Your task to perform on an android device: Add "energizer triple a" to the cart on newegg.com, then select checkout. Image 0: 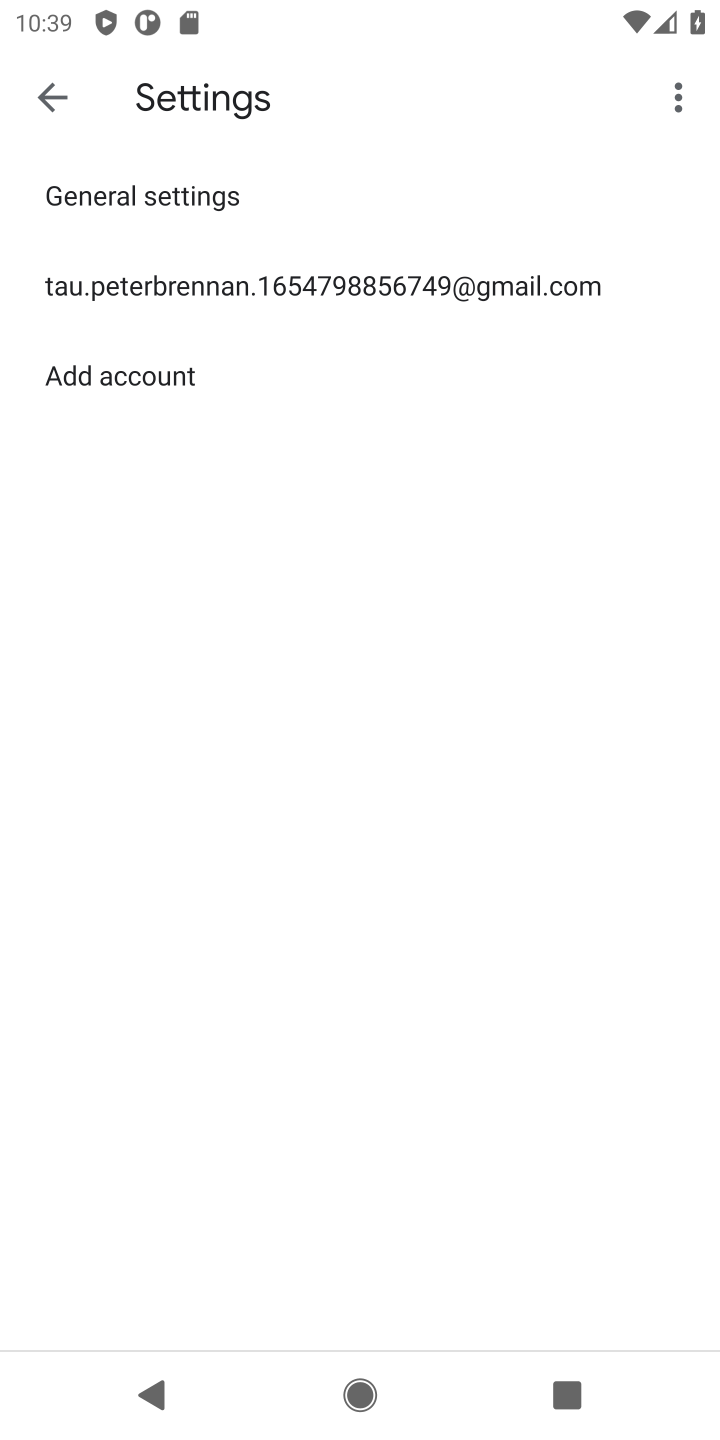
Step 0: press home button
Your task to perform on an android device: Add "energizer triple a" to the cart on newegg.com, then select checkout. Image 1: 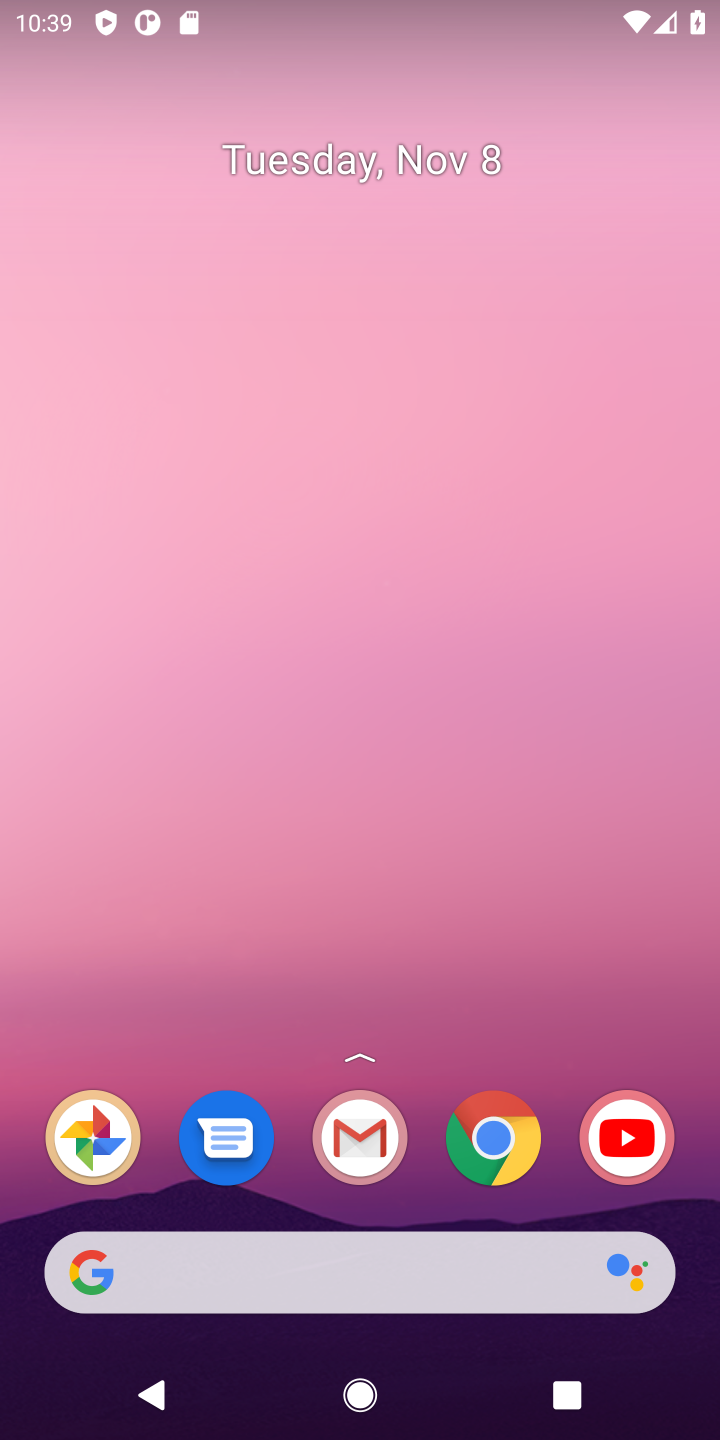
Step 1: click (485, 1126)
Your task to perform on an android device: Add "energizer triple a" to the cart on newegg.com, then select checkout. Image 2: 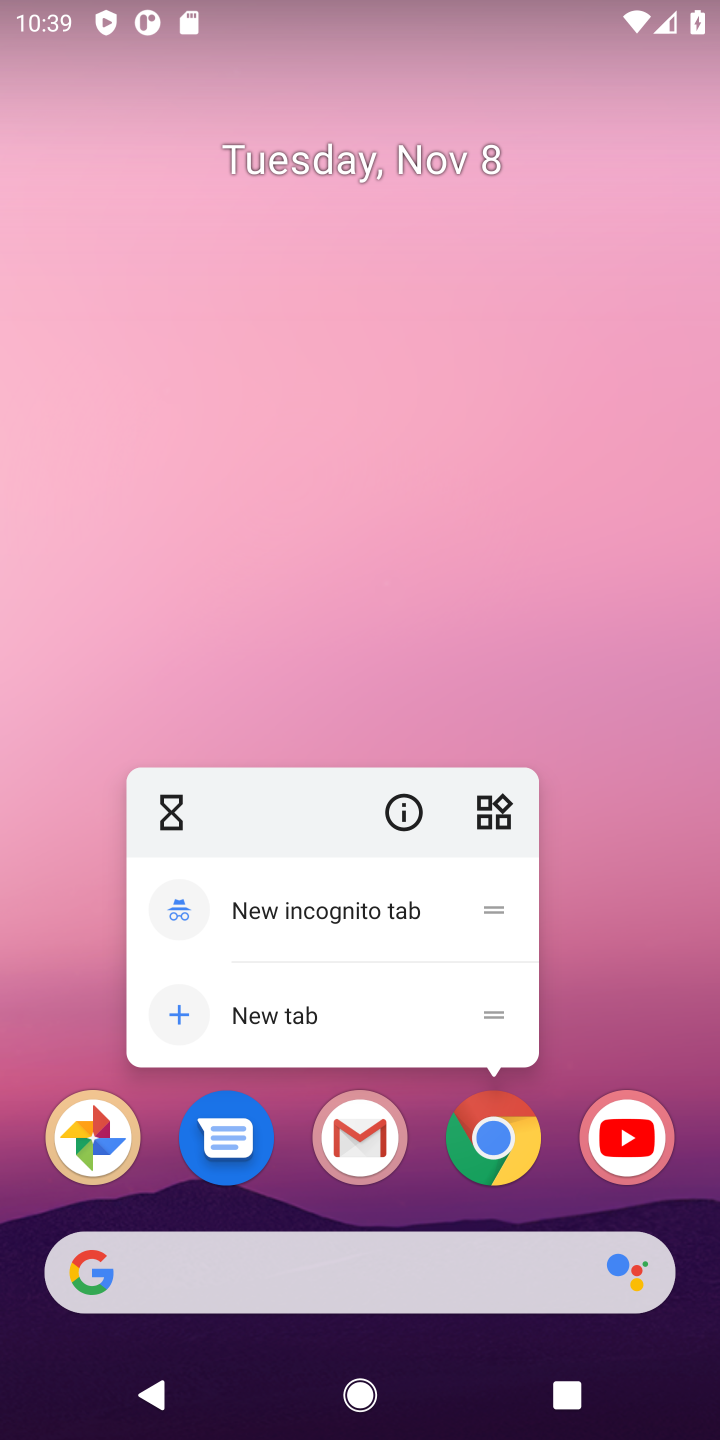
Step 2: click (504, 1149)
Your task to perform on an android device: Add "energizer triple a" to the cart on newegg.com, then select checkout. Image 3: 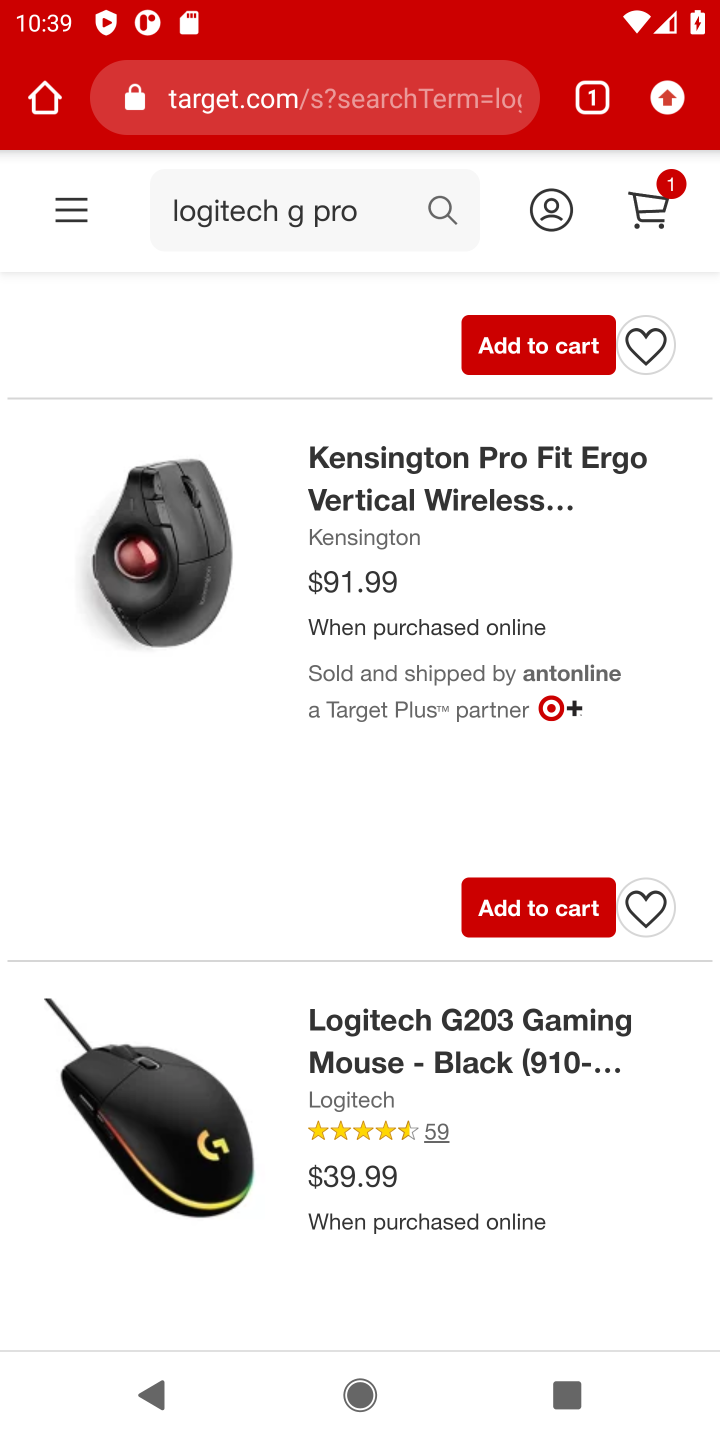
Step 3: click (444, 104)
Your task to perform on an android device: Add "energizer triple a" to the cart on newegg.com, then select checkout. Image 4: 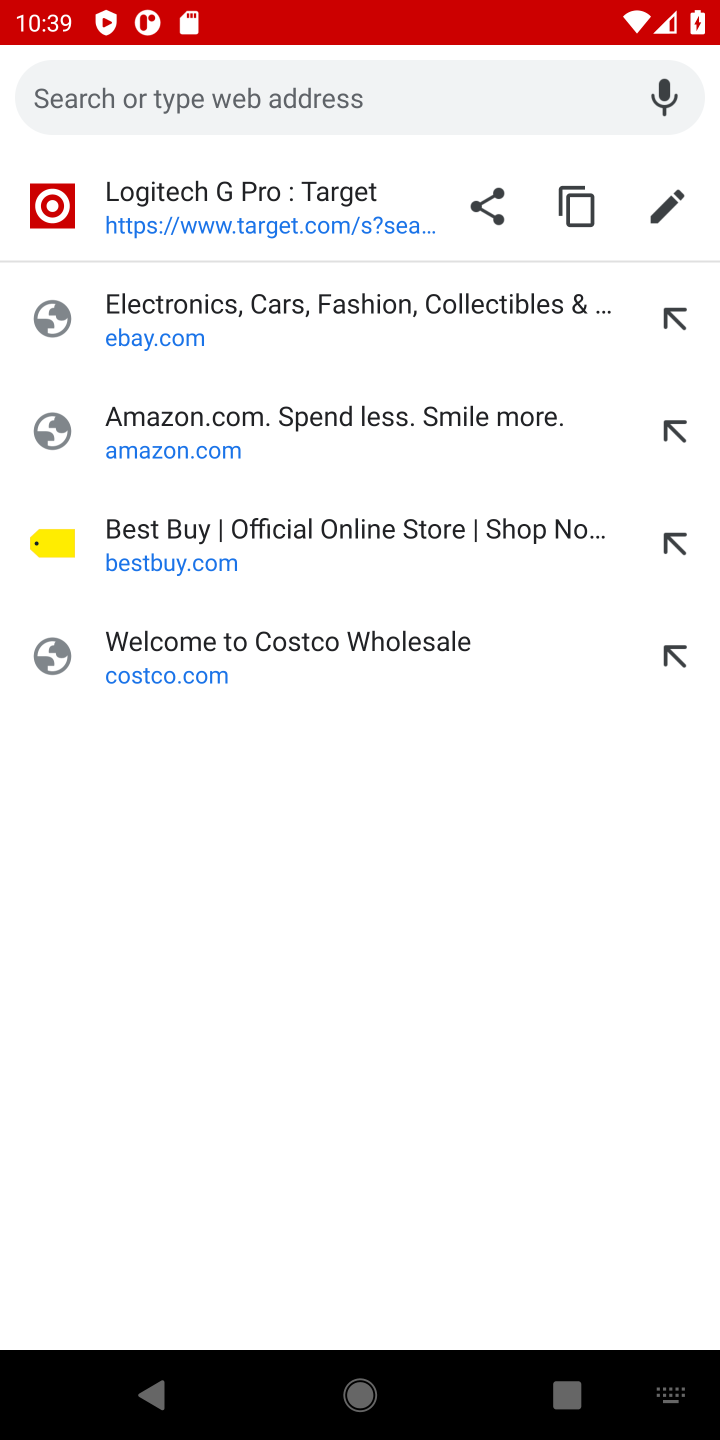
Step 4: press enter
Your task to perform on an android device: Add "energizer triple a" to the cart on newegg.com, then select checkout. Image 5: 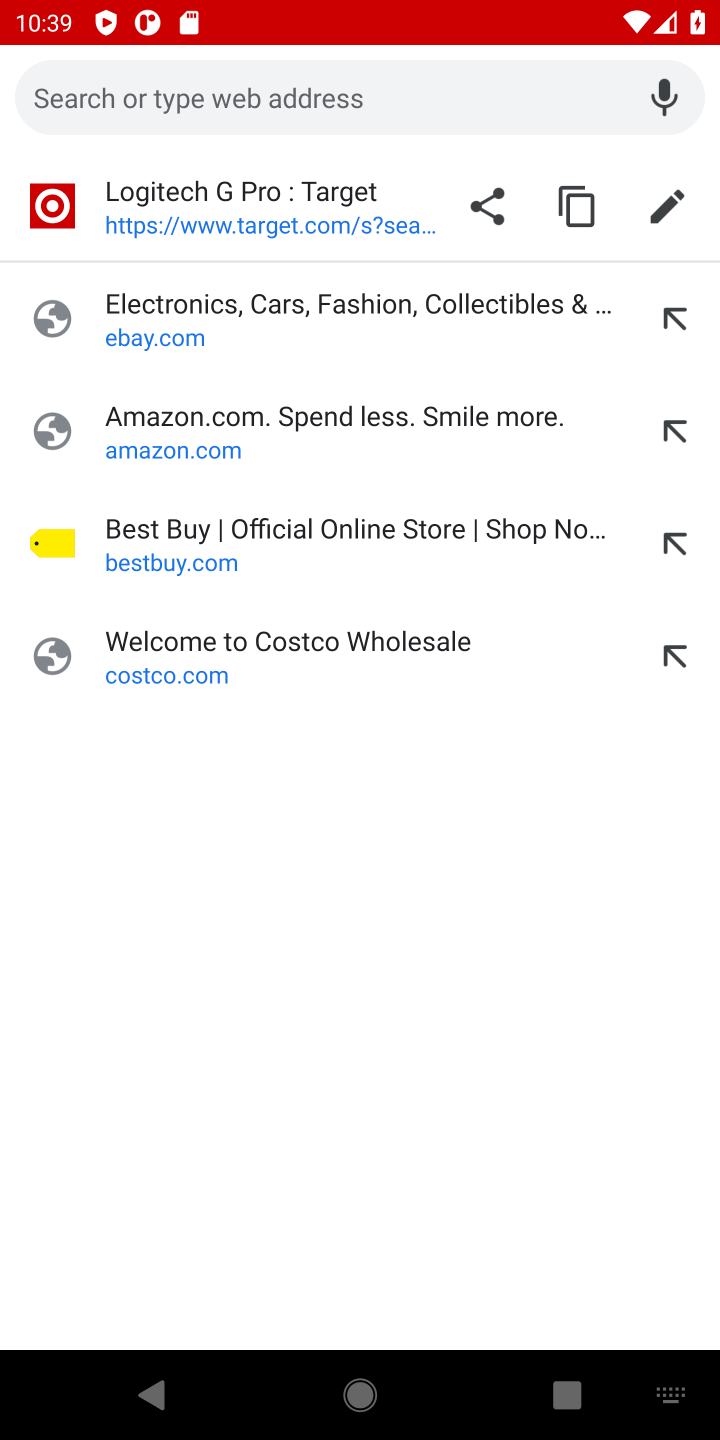
Step 5: type " newegg.com"
Your task to perform on an android device: Add "energizer triple a" to the cart on newegg.com, then select checkout. Image 6: 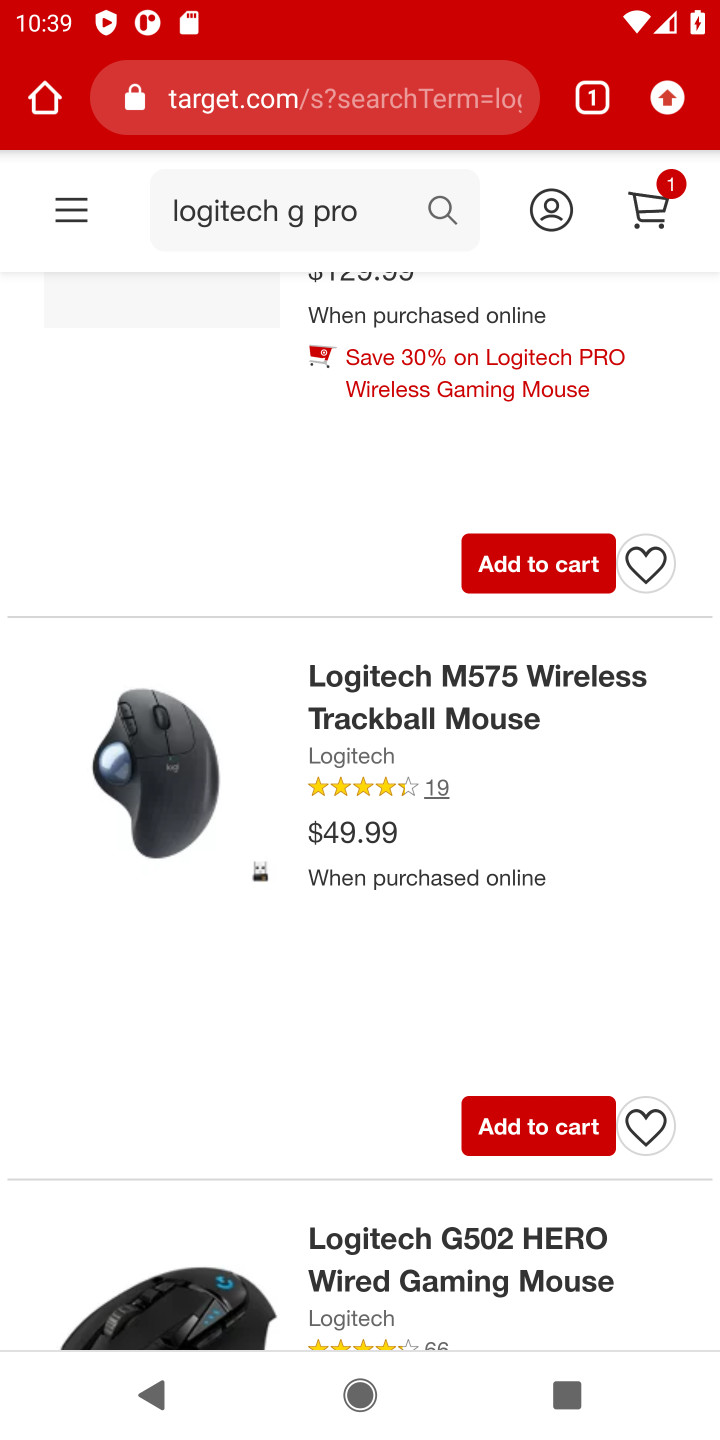
Step 6: click (389, 191)
Your task to perform on an android device: Add "energizer triple a" to the cart on newegg.com, then select checkout. Image 7: 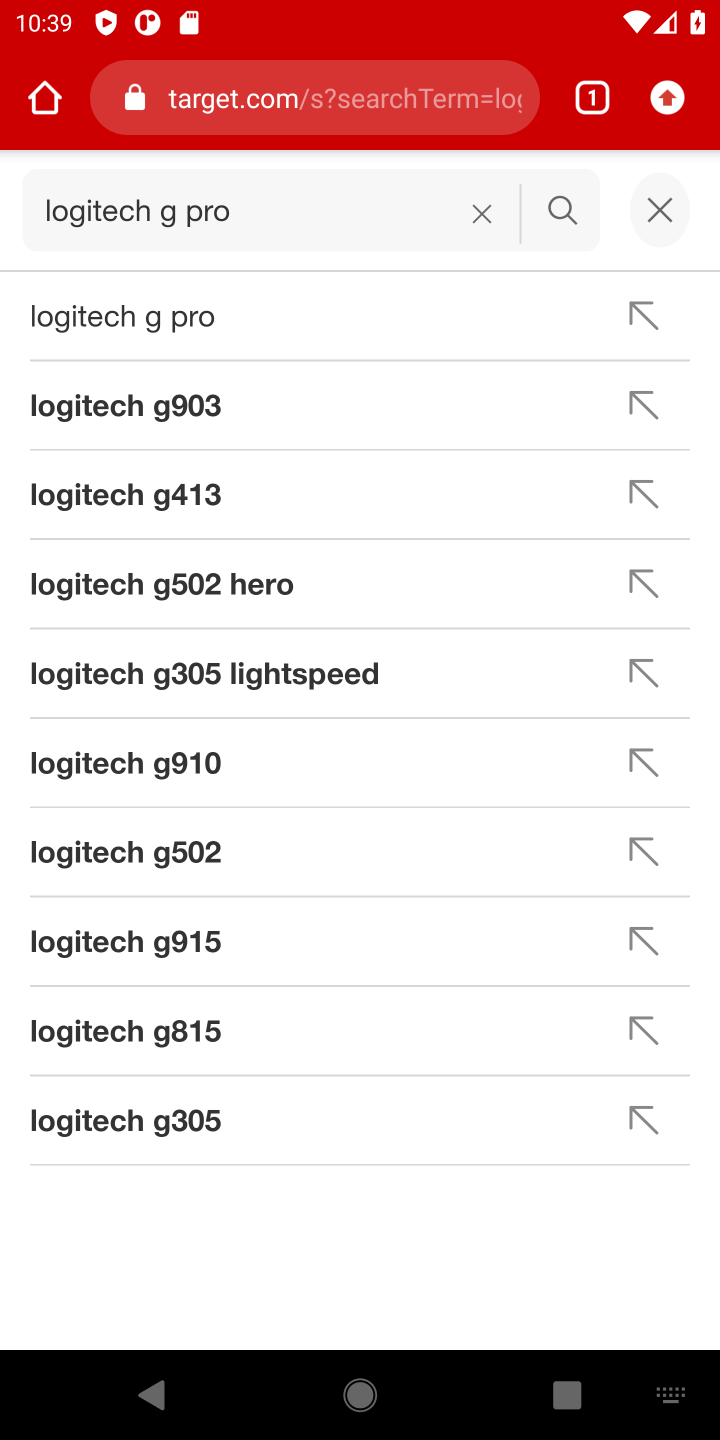
Step 7: click (394, 102)
Your task to perform on an android device: Add "energizer triple a" to the cart on newegg.com, then select checkout. Image 8: 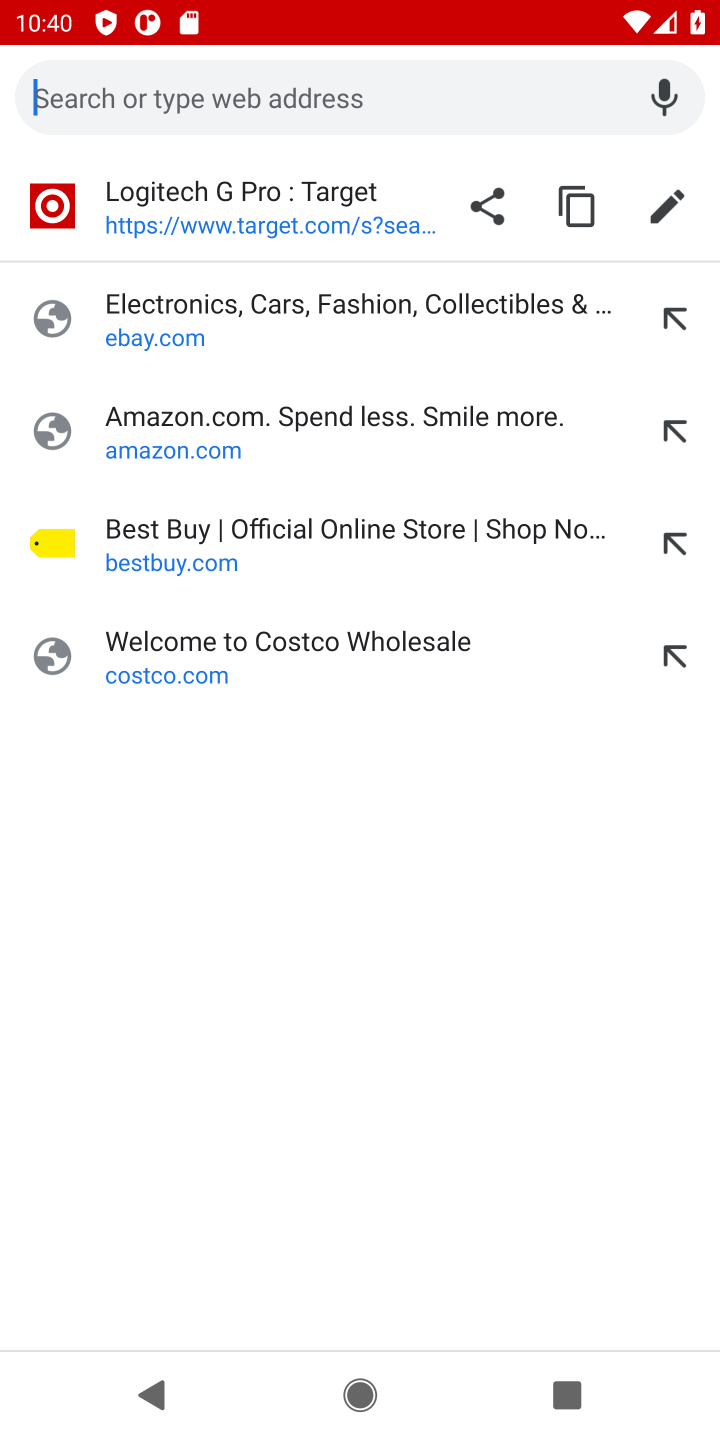
Step 8: type " newegg.com"
Your task to perform on an android device: Add "energizer triple a" to the cart on newegg.com, then select checkout. Image 9: 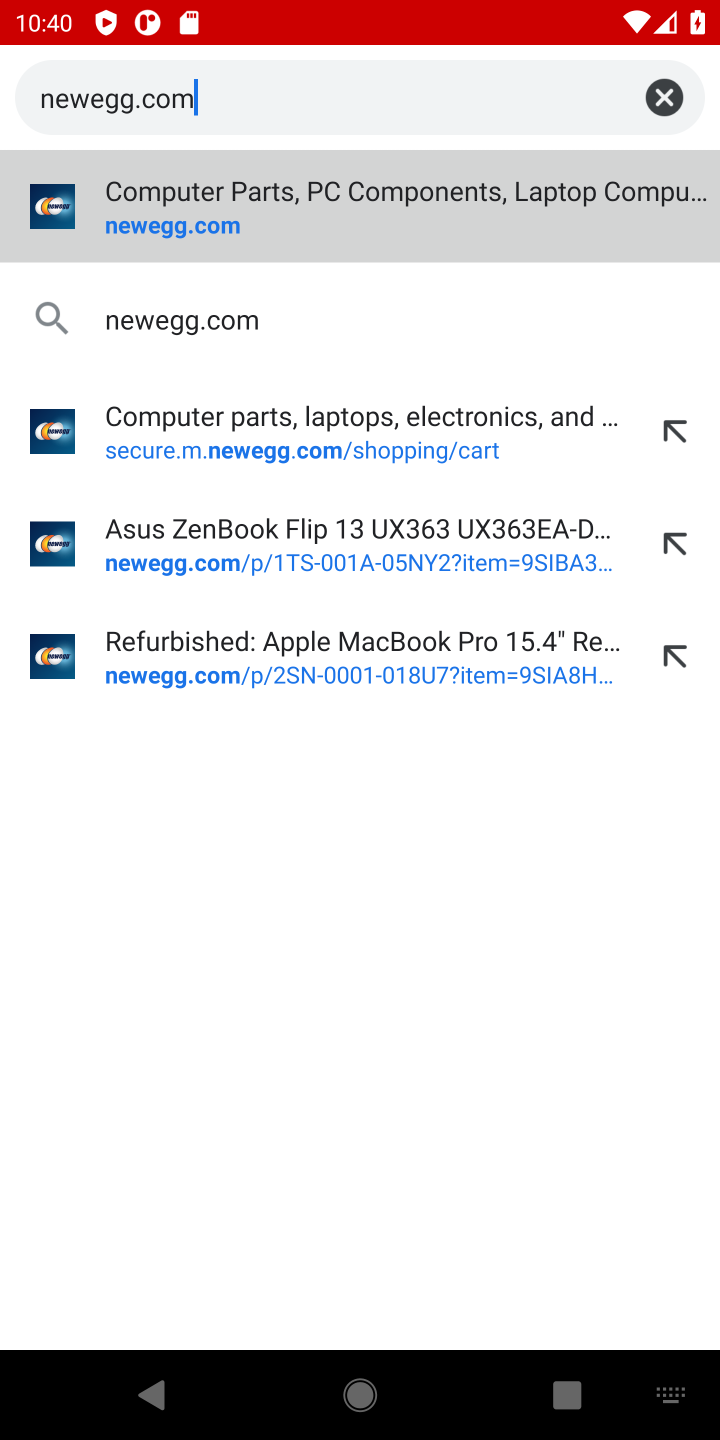
Step 9: press enter
Your task to perform on an android device: Add "energizer triple a" to the cart on newegg.com, then select checkout. Image 10: 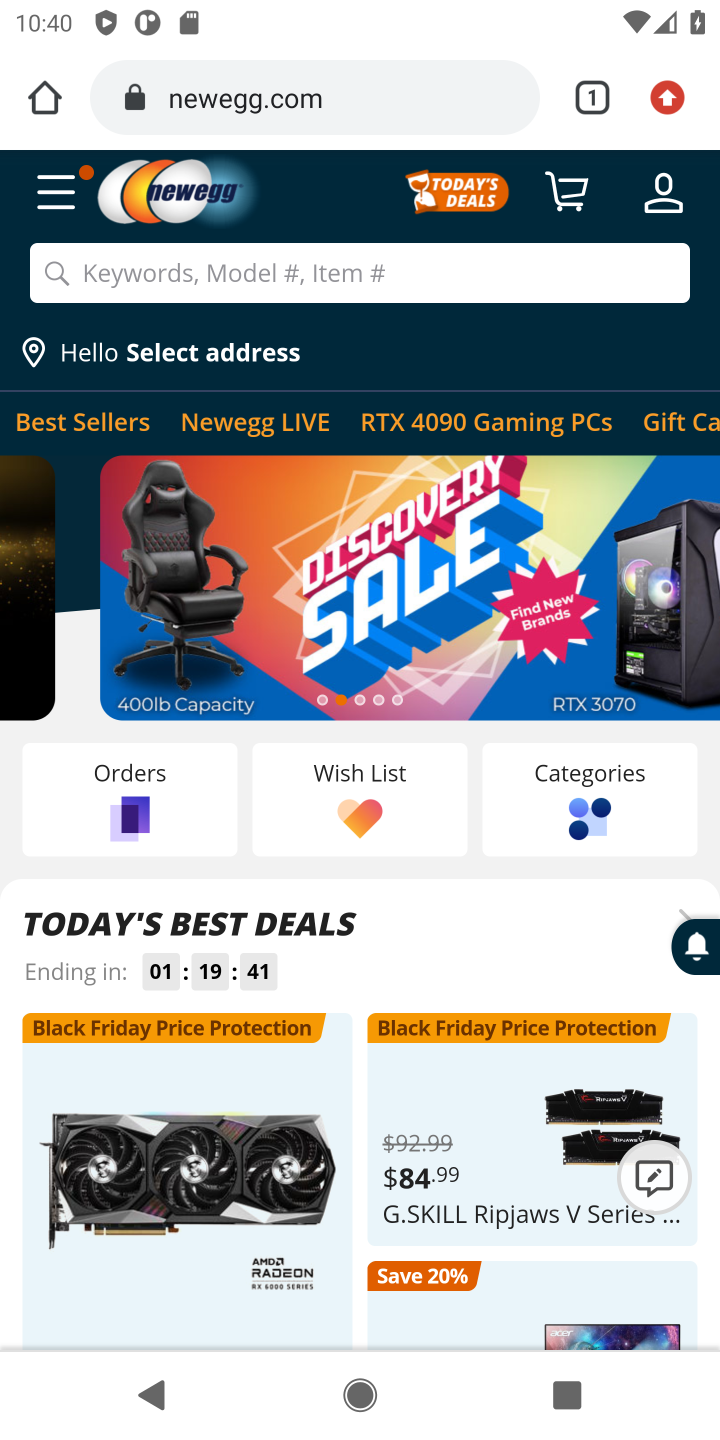
Step 10: click (210, 266)
Your task to perform on an android device: Add "energizer triple a" to the cart on newegg.com, then select checkout. Image 11: 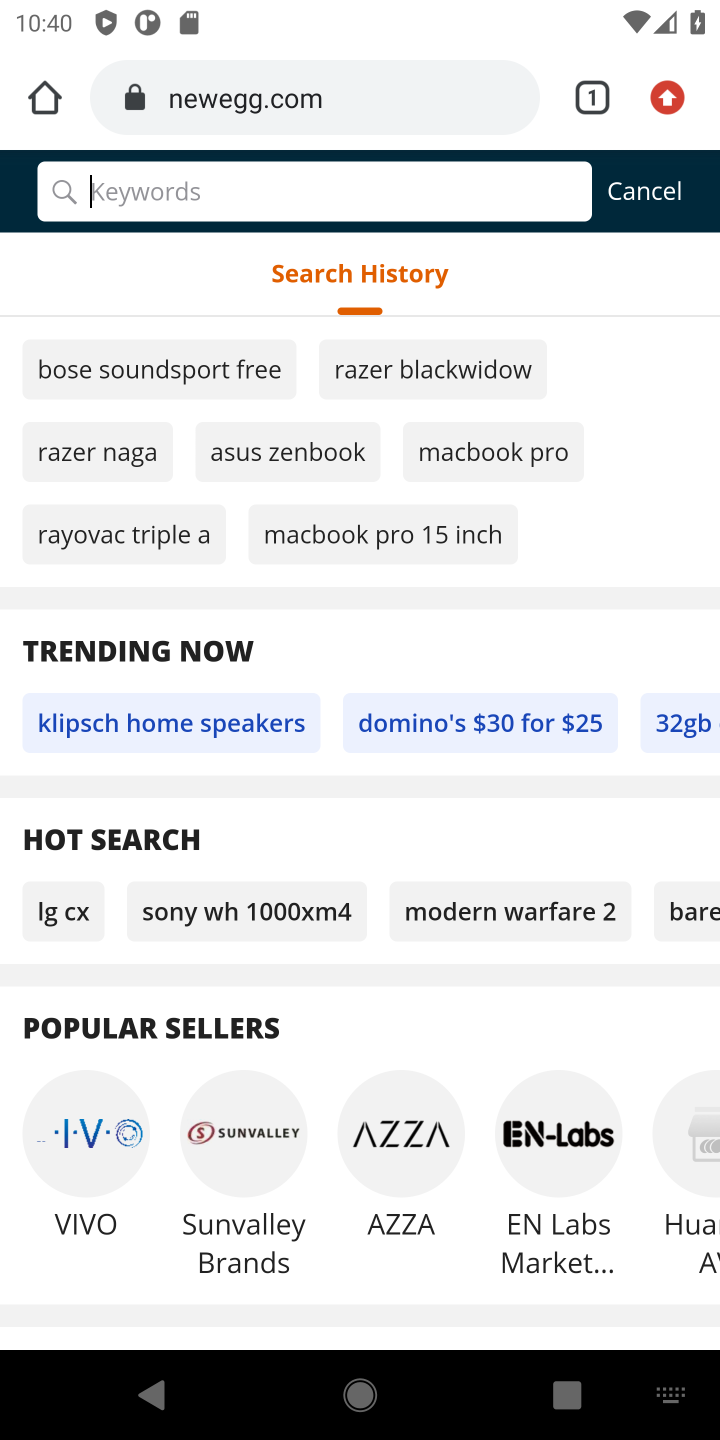
Step 11: click (210, 266)
Your task to perform on an android device: Add "energizer triple a" to the cart on newegg.com, then select checkout. Image 12: 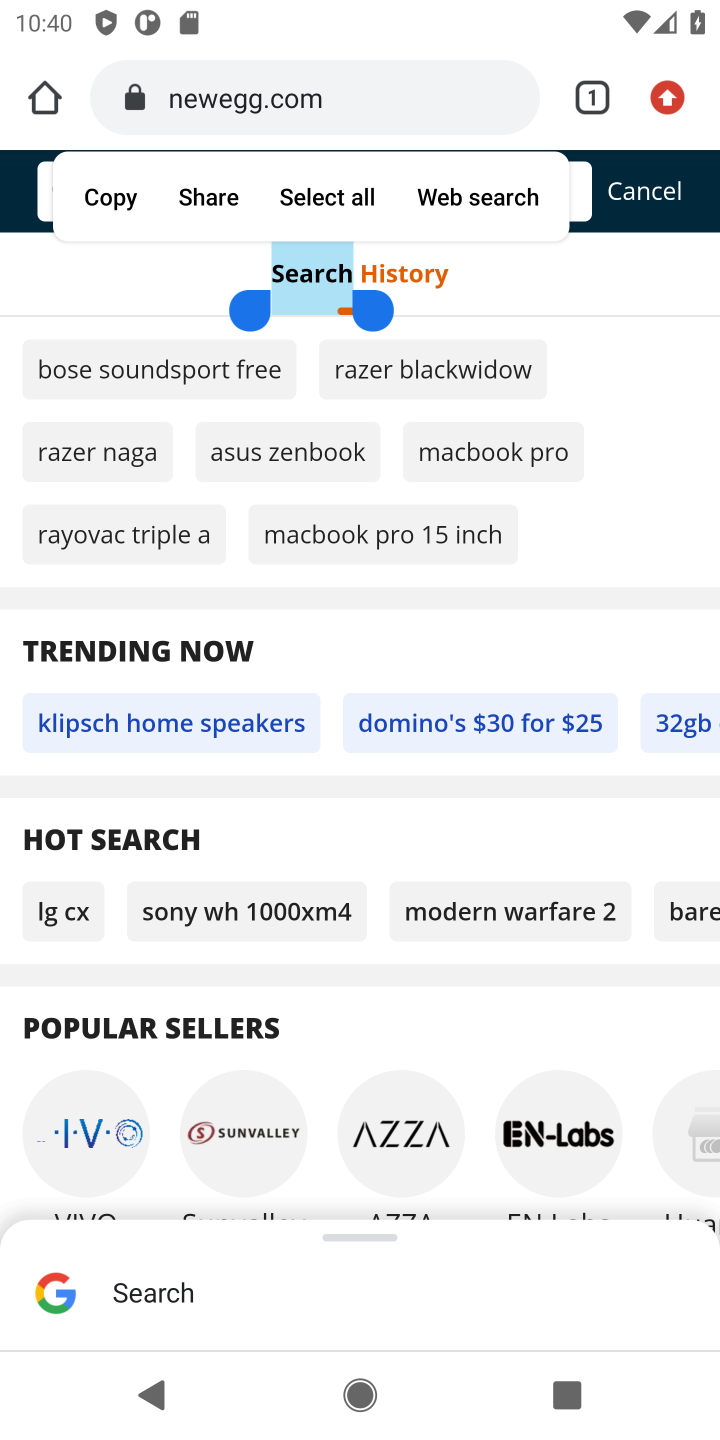
Step 12: click (669, 255)
Your task to perform on an android device: Add "energizer triple a" to the cart on newegg.com, then select checkout. Image 13: 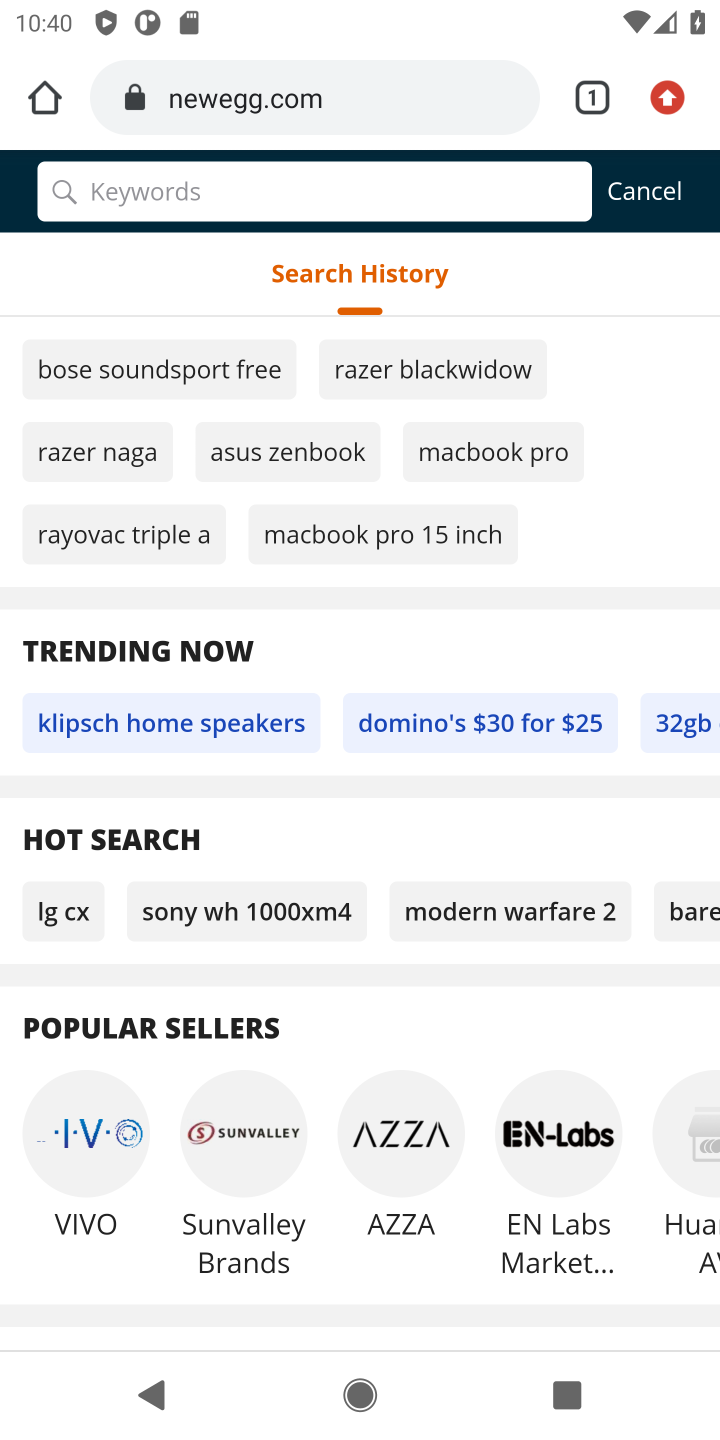
Step 13: click (110, 181)
Your task to perform on an android device: Add "energizer triple a" to the cart on newegg.com, then select checkout. Image 14: 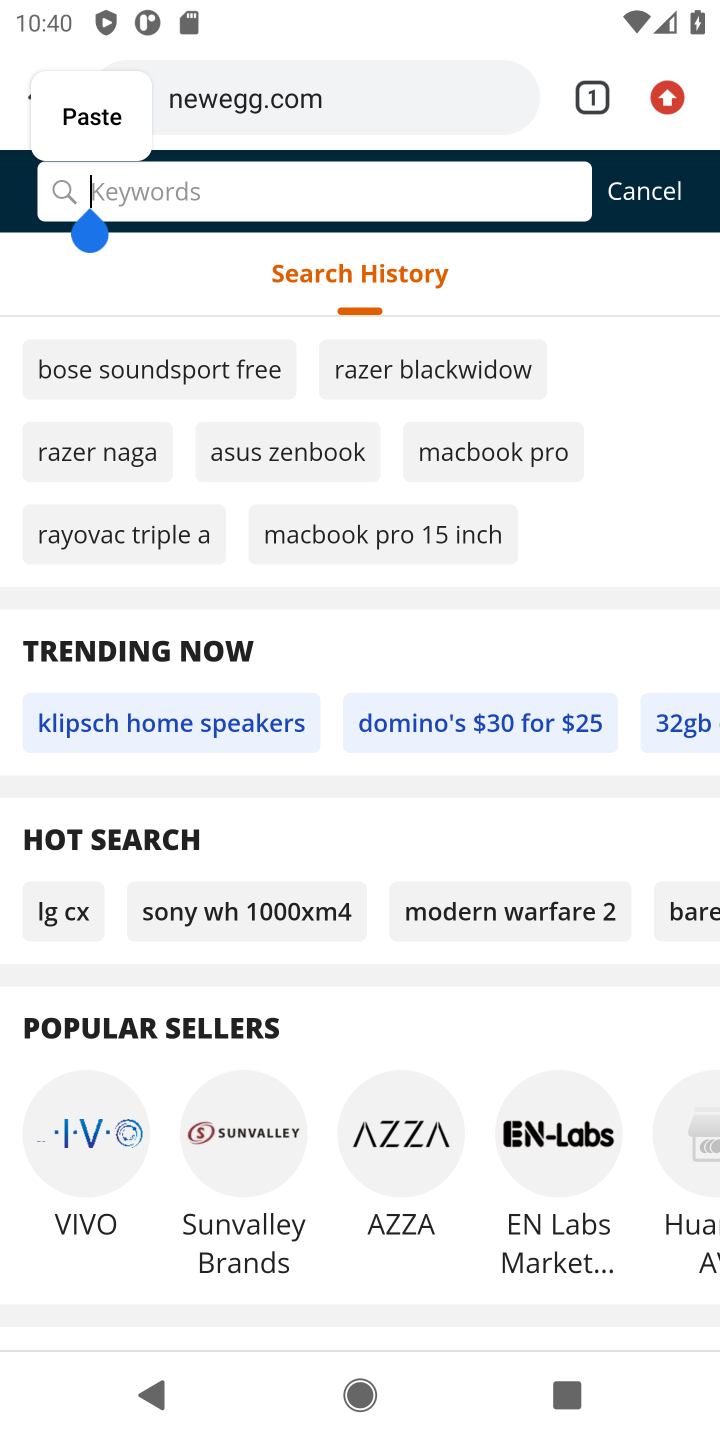
Step 14: type "energizer triple a"
Your task to perform on an android device: Add "energizer triple a" to the cart on newegg.com, then select checkout. Image 15: 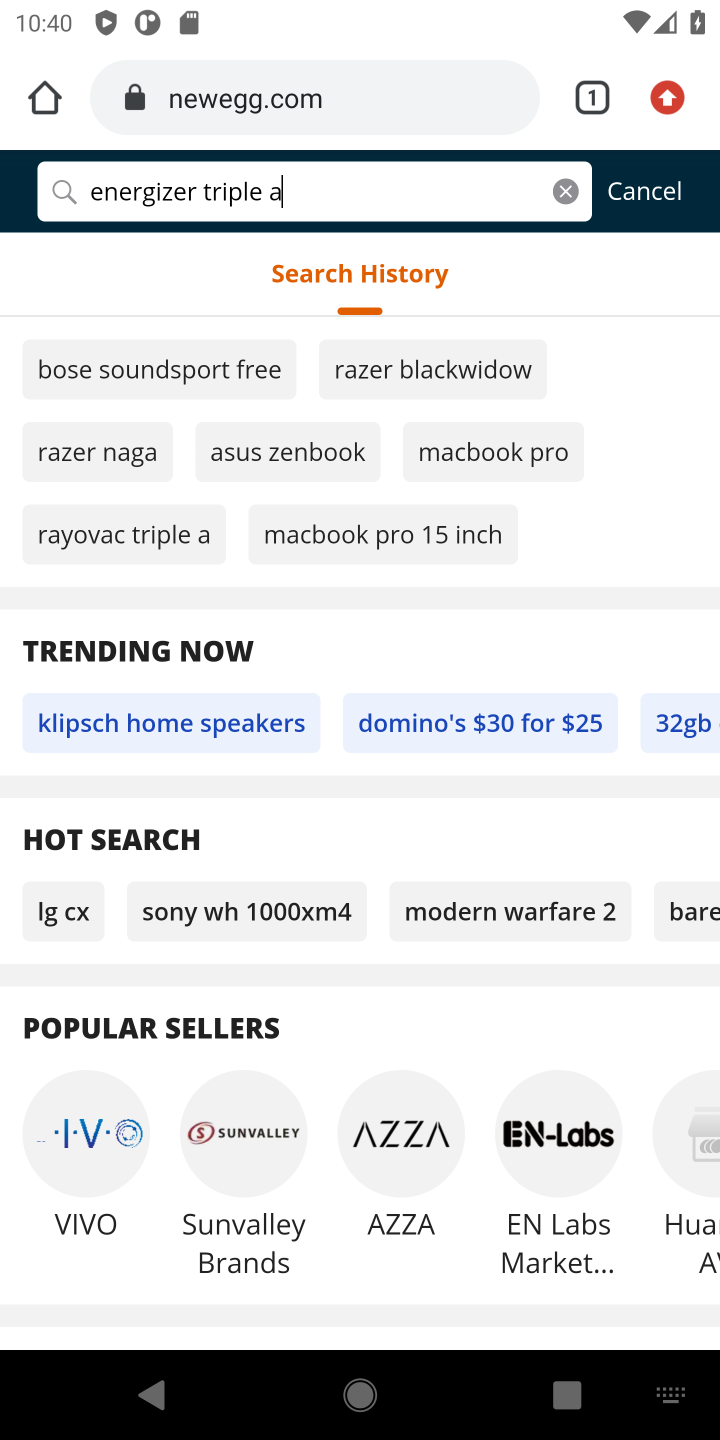
Step 15: press enter
Your task to perform on an android device: Add "energizer triple a" to the cart on newegg.com, then select checkout. Image 16: 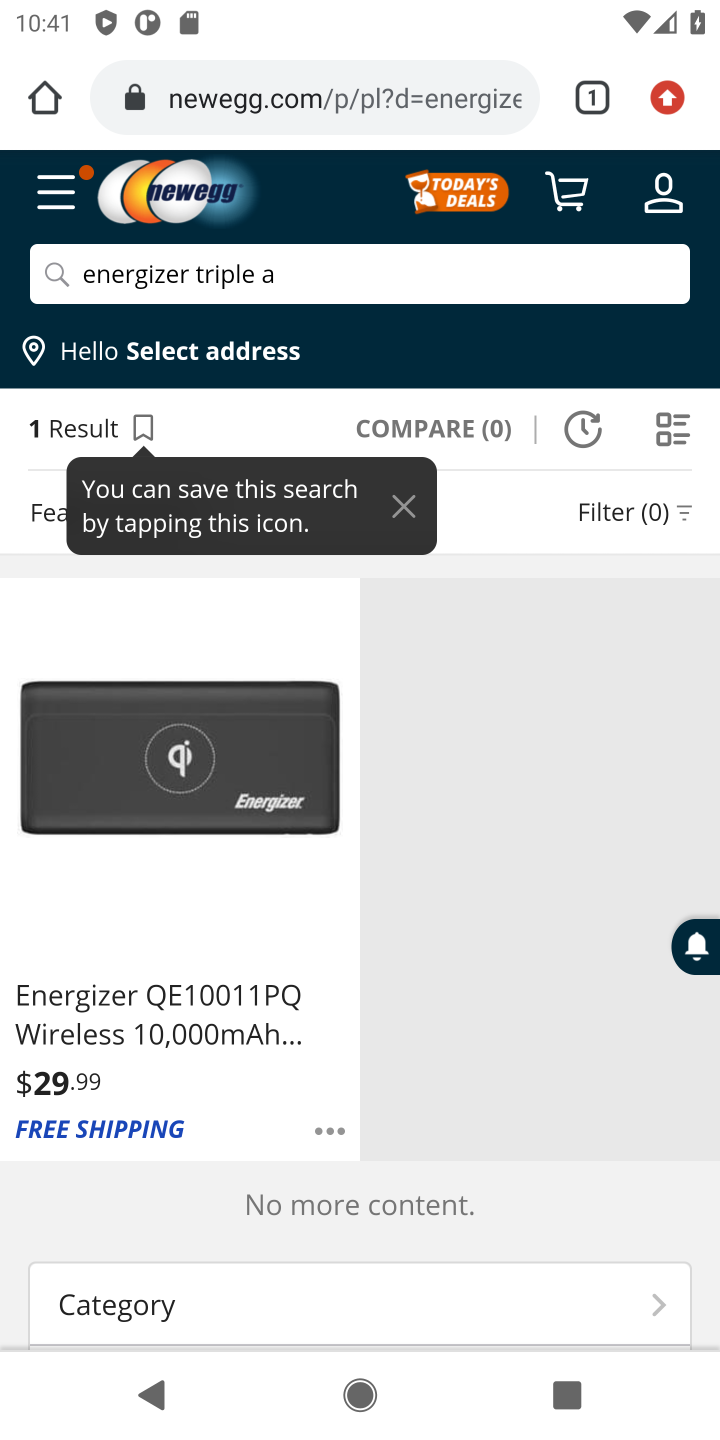
Step 16: task complete